Your task to perform on an android device: Open sound settings Image 0: 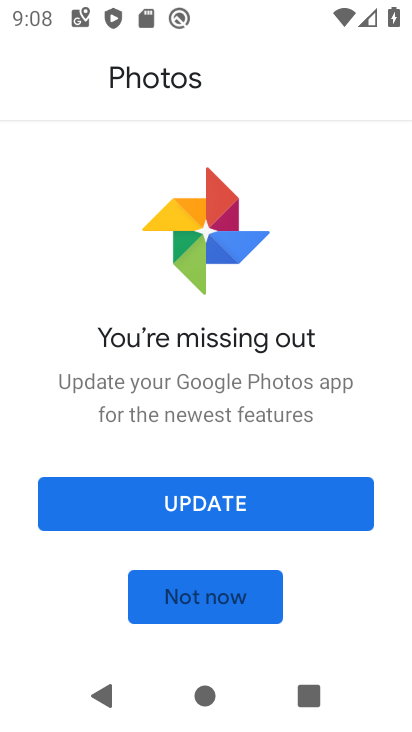
Step 0: press home button
Your task to perform on an android device: Open sound settings Image 1: 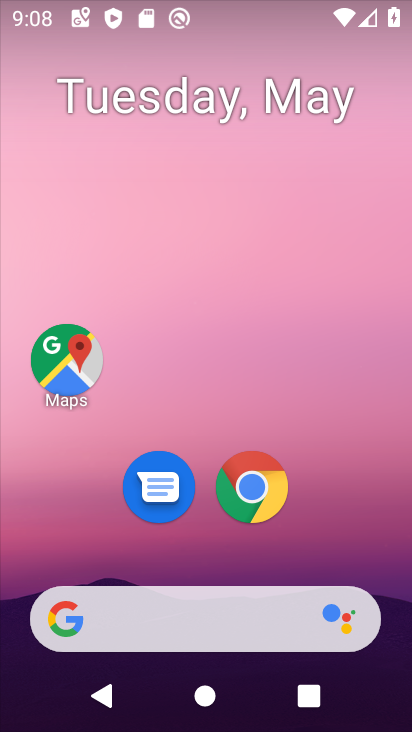
Step 1: drag from (389, 530) to (384, 194)
Your task to perform on an android device: Open sound settings Image 2: 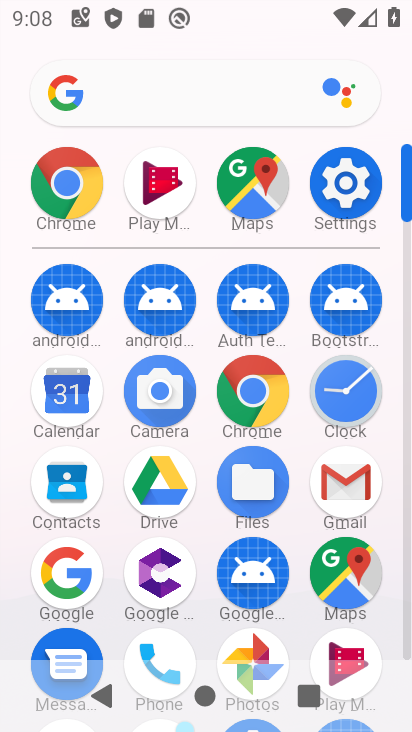
Step 2: click (355, 207)
Your task to perform on an android device: Open sound settings Image 3: 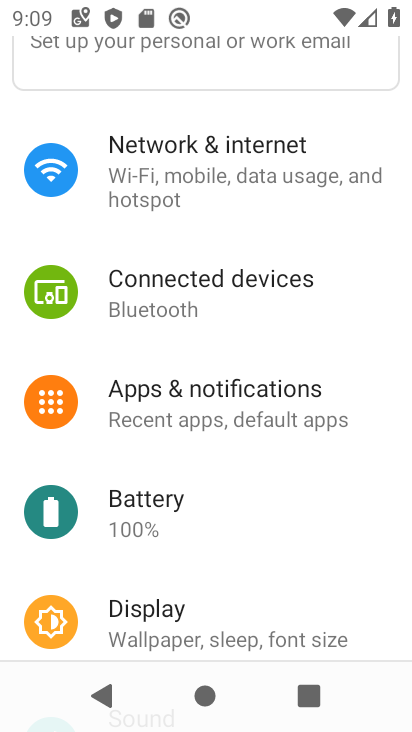
Step 3: drag from (353, 484) to (352, 405)
Your task to perform on an android device: Open sound settings Image 4: 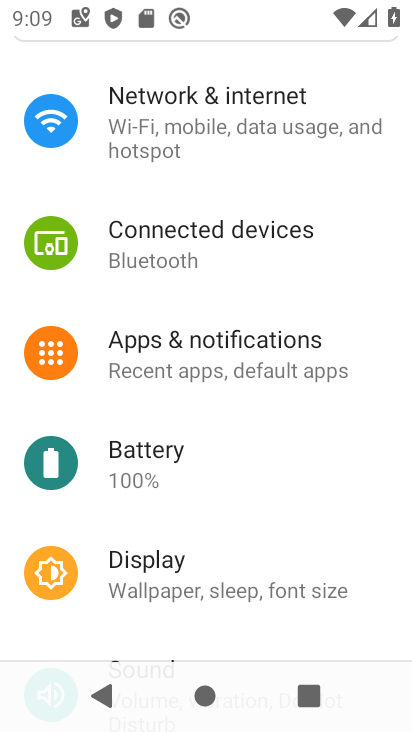
Step 4: drag from (355, 532) to (356, 414)
Your task to perform on an android device: Open sound settings Image 5: 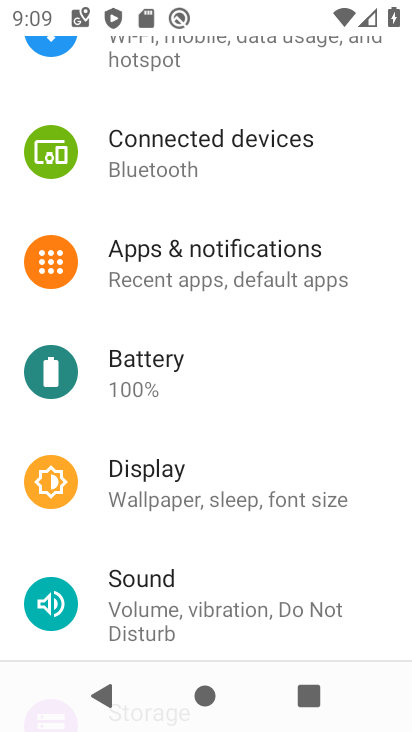
Step 5: drag from (367, 563) to (367, 445)
Your task to perform on an android device: Open sound settings Image 6: 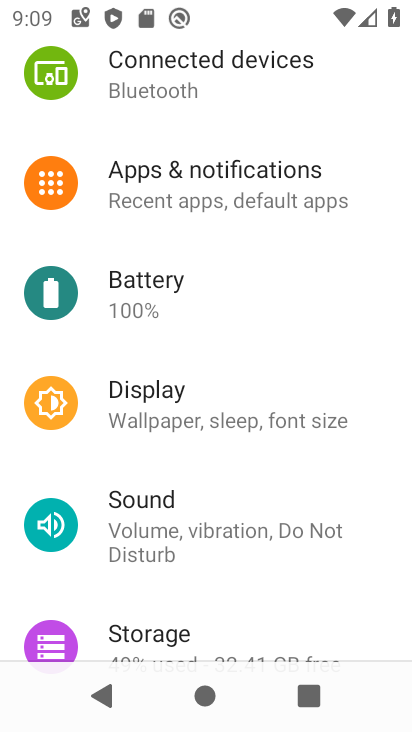
Step 6: drag from (378, 561) to (357, 459)
Your task to perform on an android device: Open sound settings Image 7: 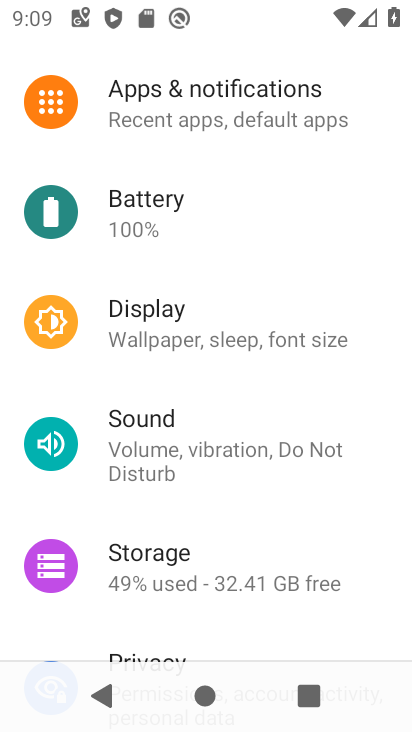
Step 7: drag from (363, 557) to (360, 436)
Your task to perform on an android device: Open sound settings Image 8: 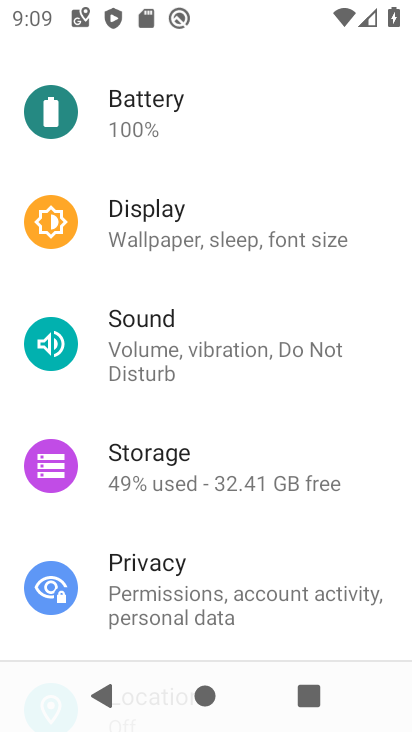
Step 8: drag from (367, 532) to (370, 416)
Your task to perform on an android device: Open sound settings Image 9: 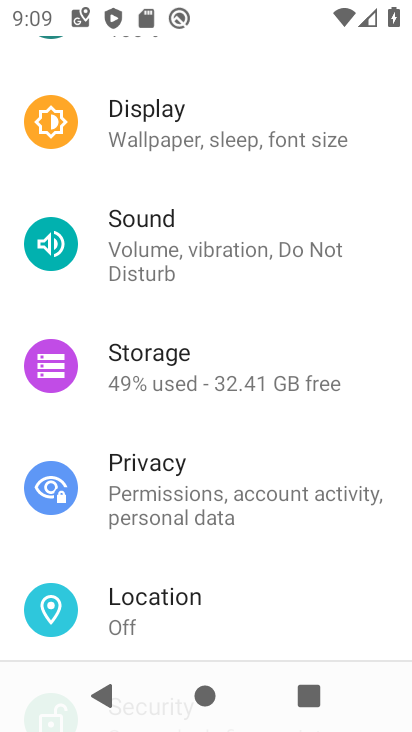
Step 9: click (275, 268)
Your task to perform on an android device: Open sound settings Image 10: 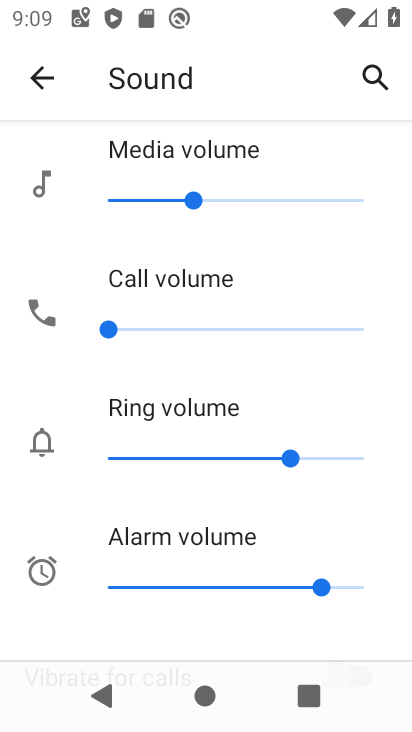
Step 10: task complete